Your task to perform on an android device: uninstall "Google Home" Image 0: 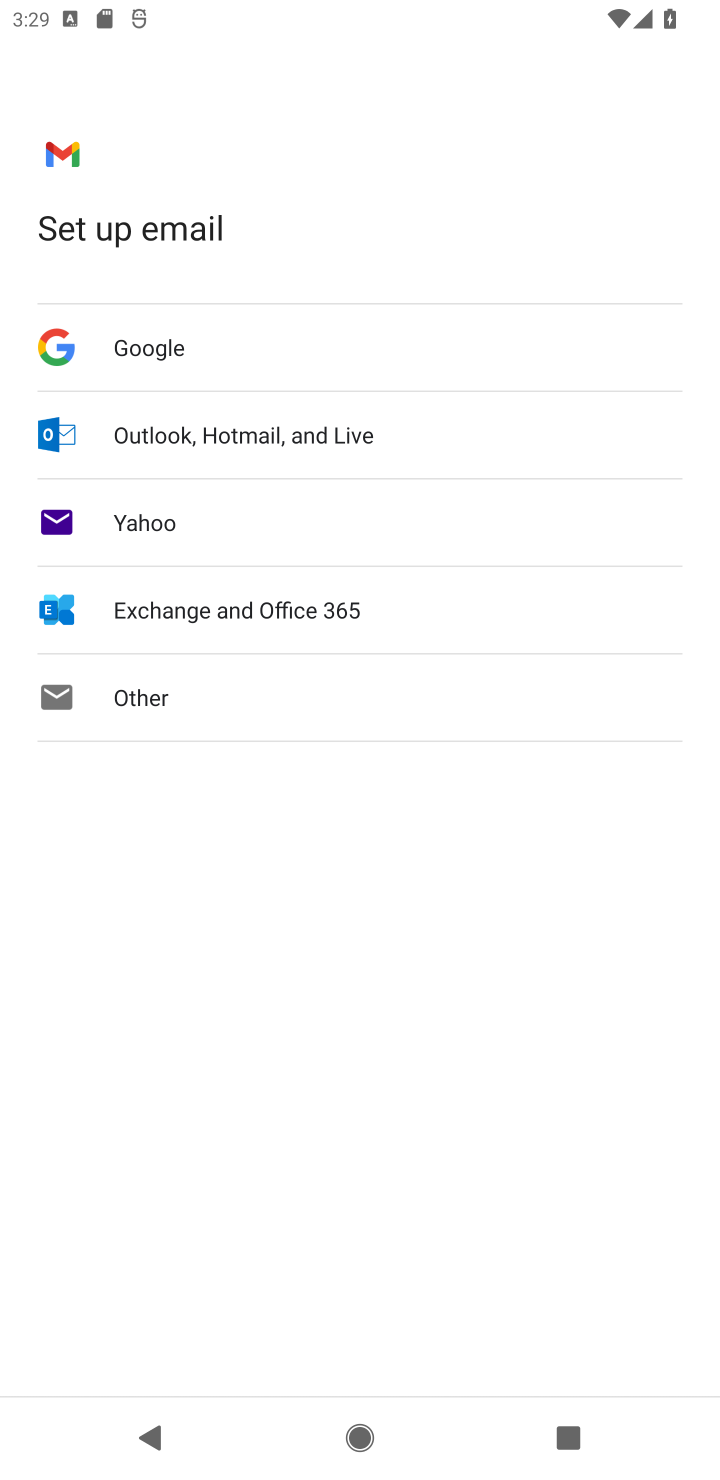
Step 0: press home button
Your task to perform on an android device: uninstall "Google Home" Image 1: 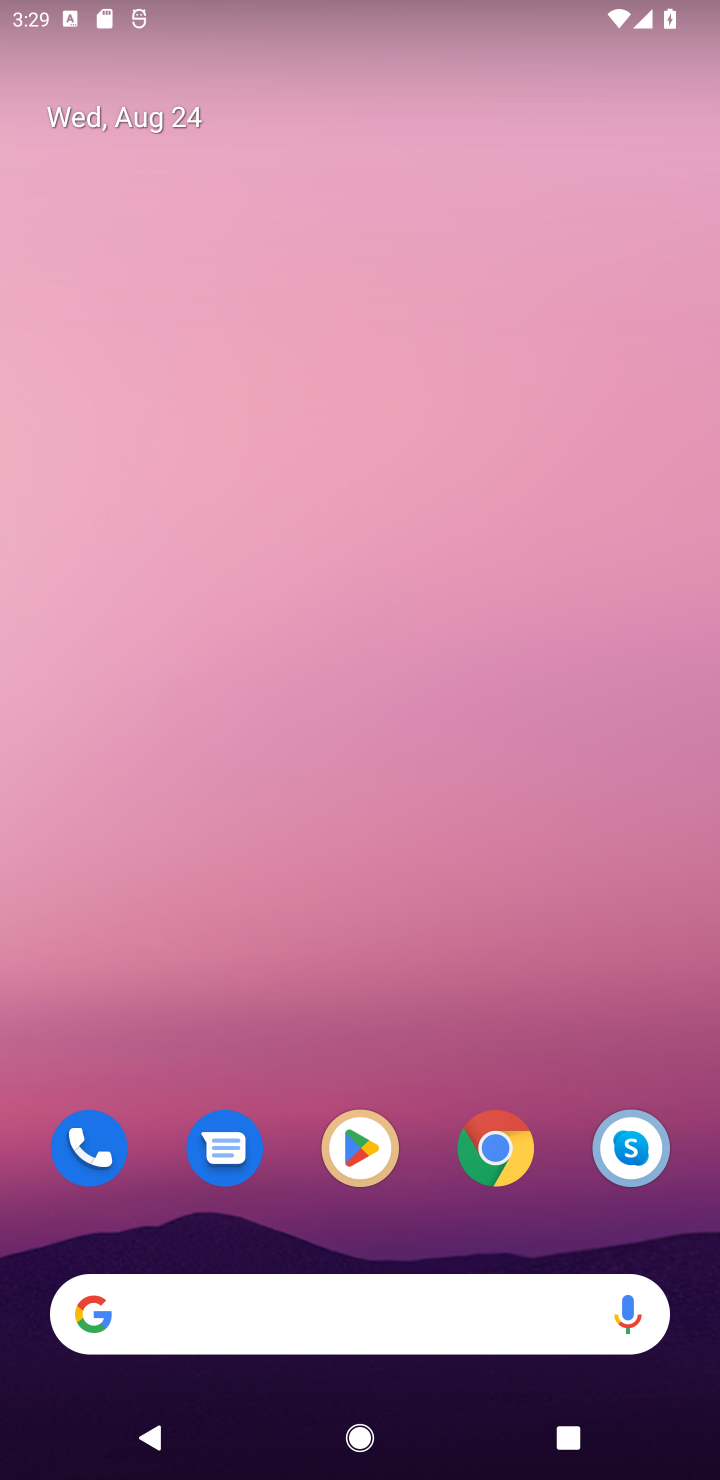
Step 1: click (354, 1141)
Your task to perform on an android device: uninstall "Google Home" Image 2: 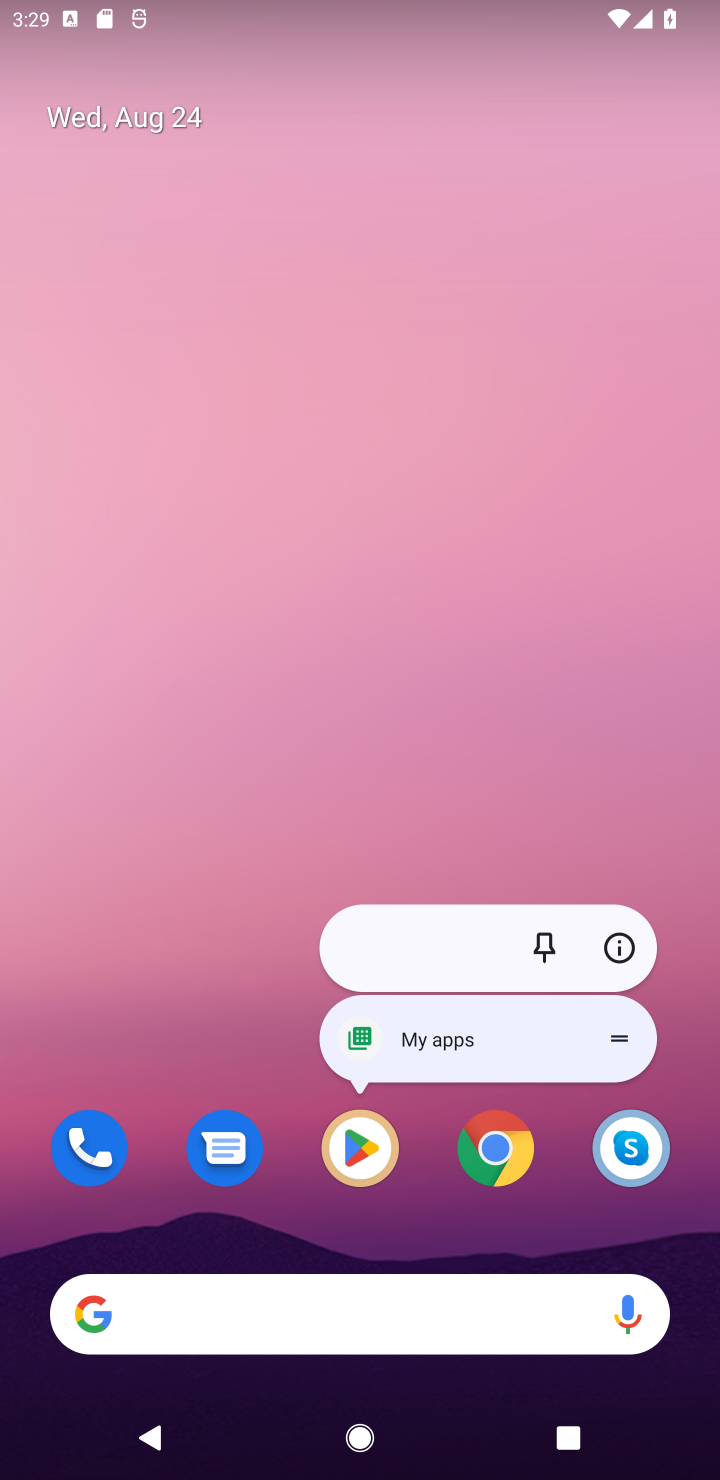
Step 2: drag from (278, 1127) to (283, 244)
Your task to perform on an android device: uninstall "Google Home" Image 3: 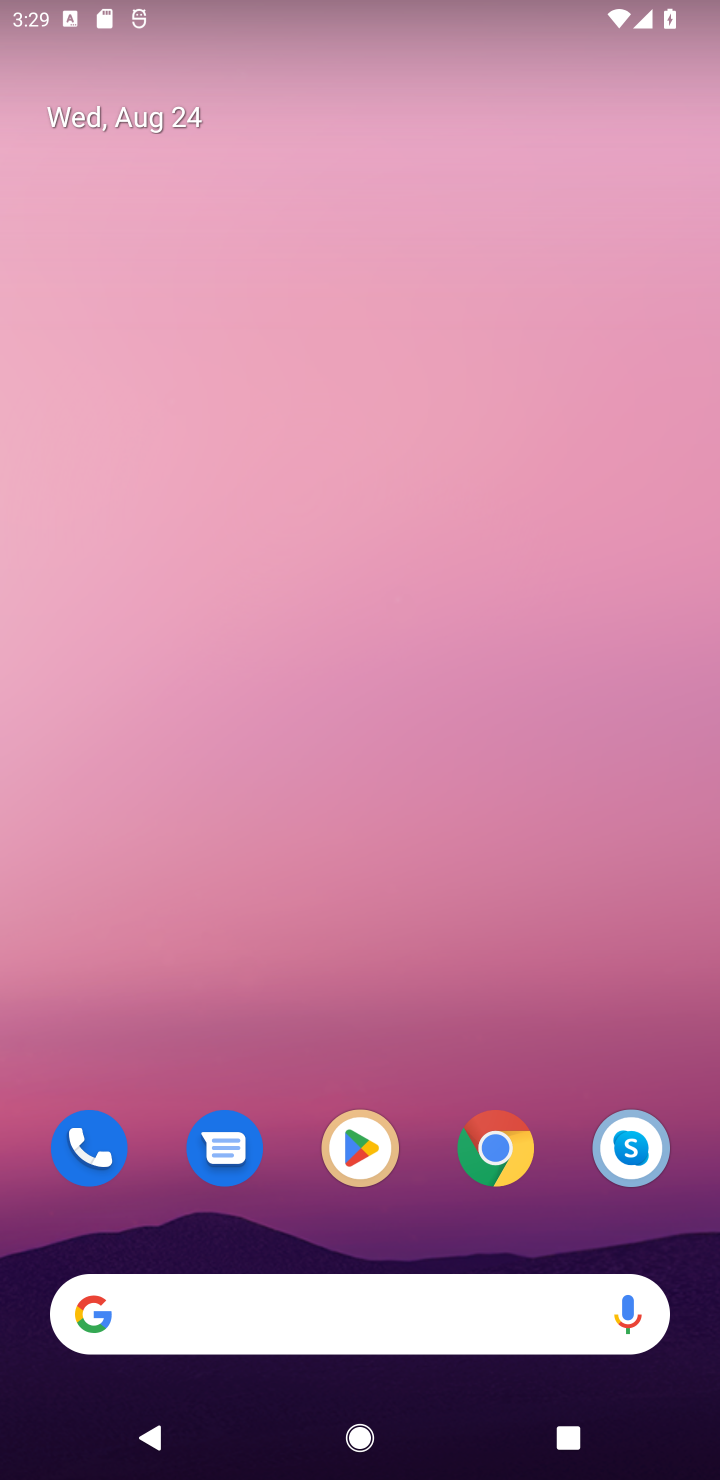
Step 3: drag from (332, 1172) to (383, 316)
Your task to perform on an android device: uninstall "Google Home" Image 4: 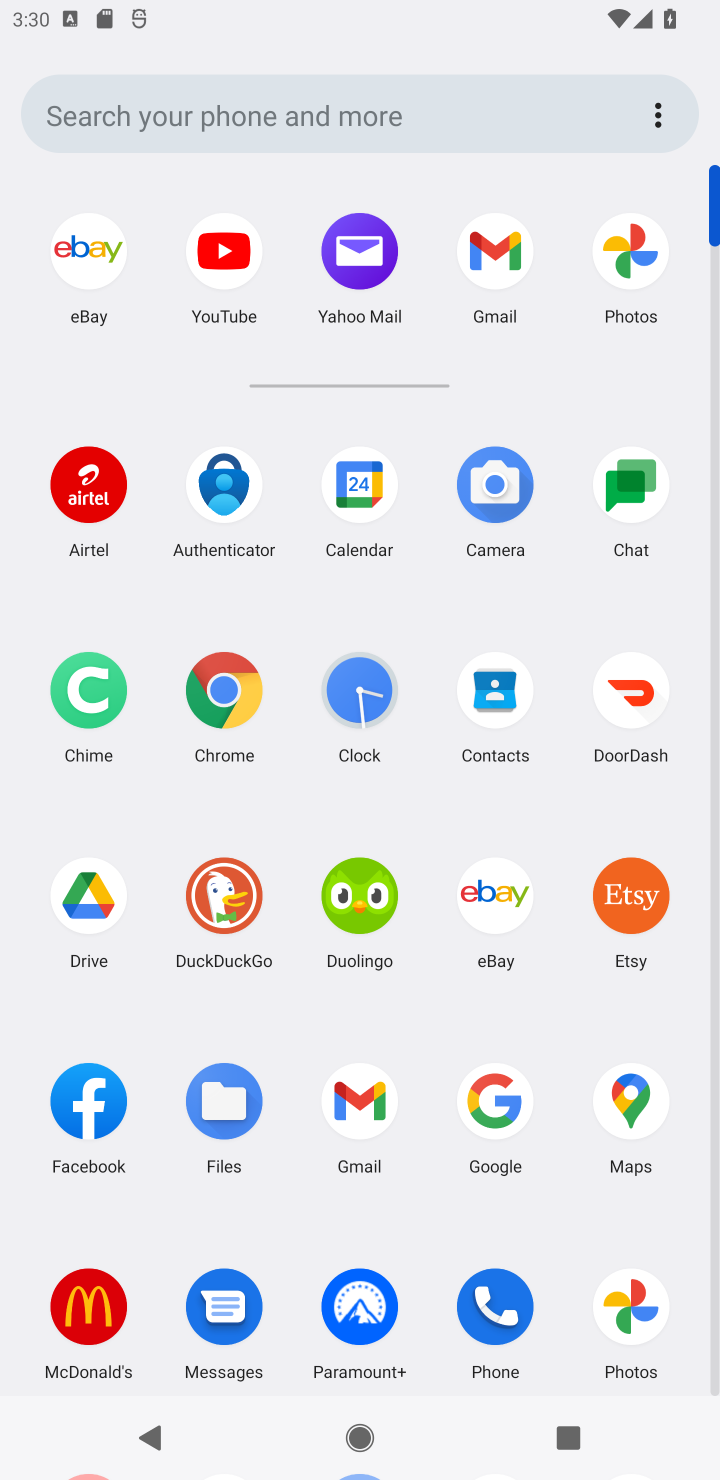
Step 4: drag from (255, 1030) to (392, 259)
Your task to perform on an android device: uninstall "Google Home" Image 5: 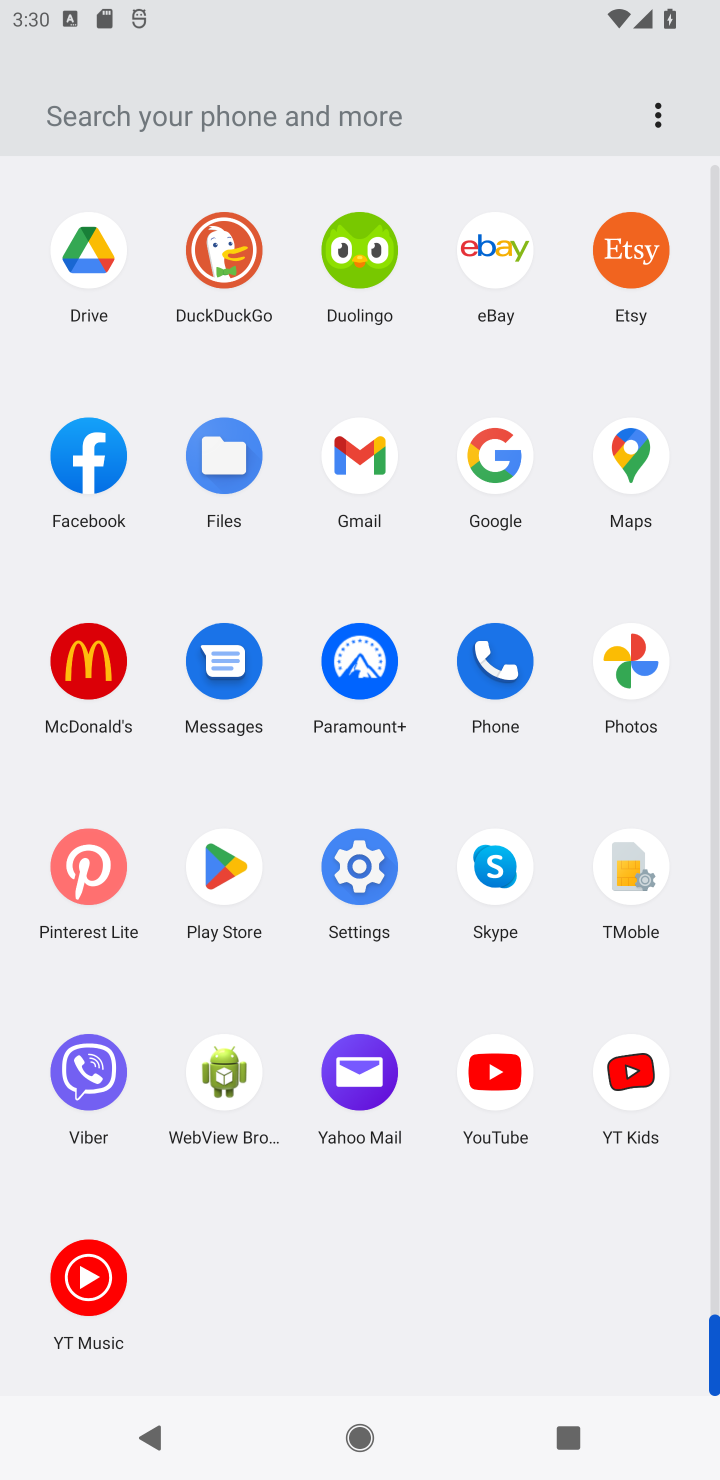
Step 5: click (248, 883)
Your task to perform on an android device: uninstall "Google Home" Image 6: 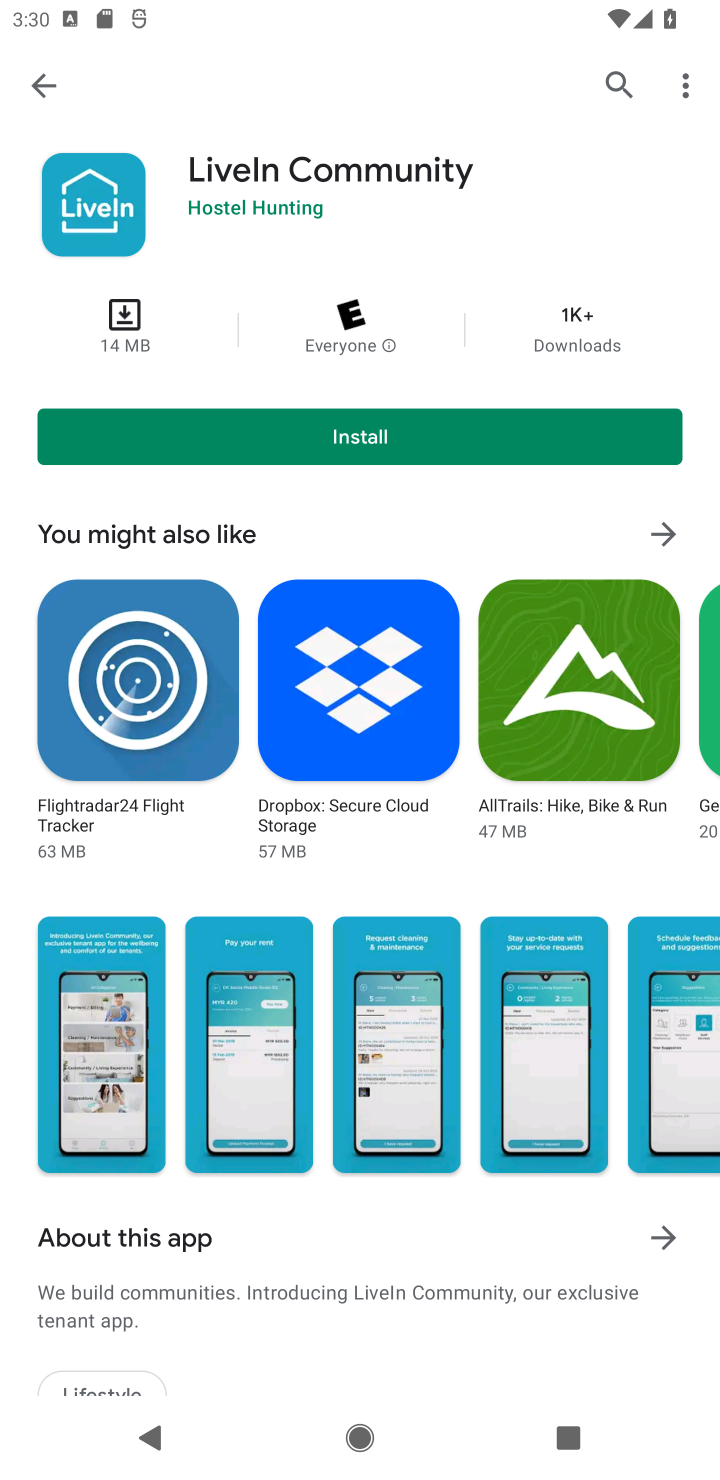
Step 6: click (50, 84)
Your task to perform on an android device: uninstall "Google Home" Image 7: 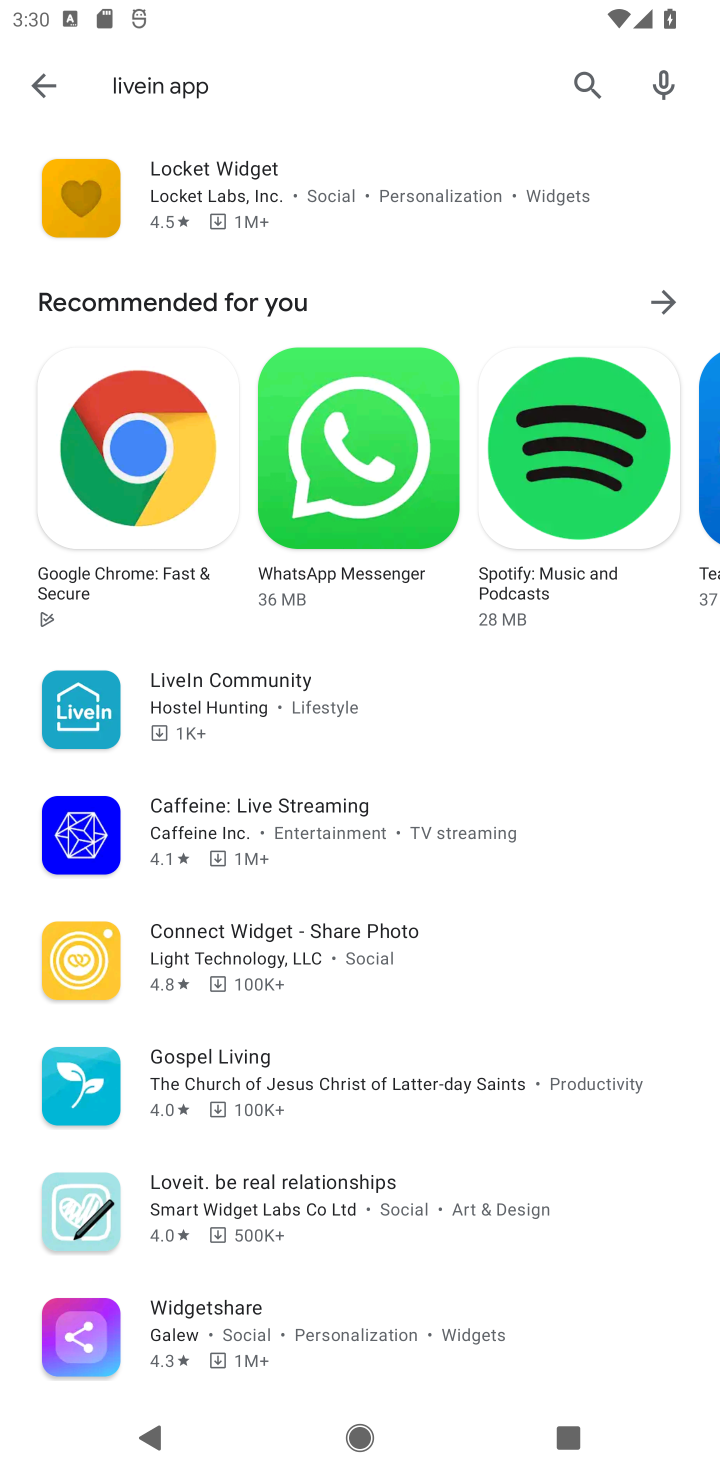
Step 7: click (50, 81)
Your task to perform on an android device: uninstall "Google Home" Image 8: 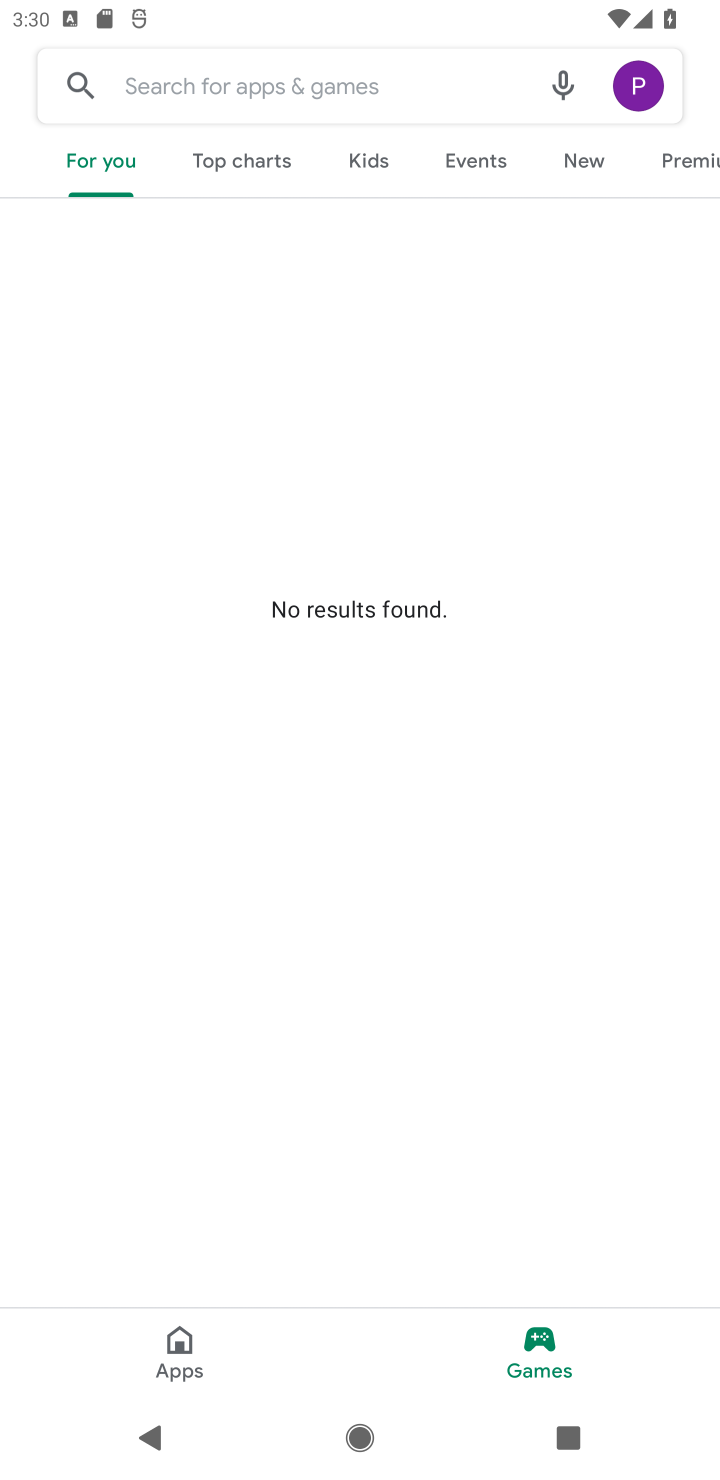
Step 8: click (305, 66)
Your task to perform on an android device: uninstall "Google Home" Image 9: 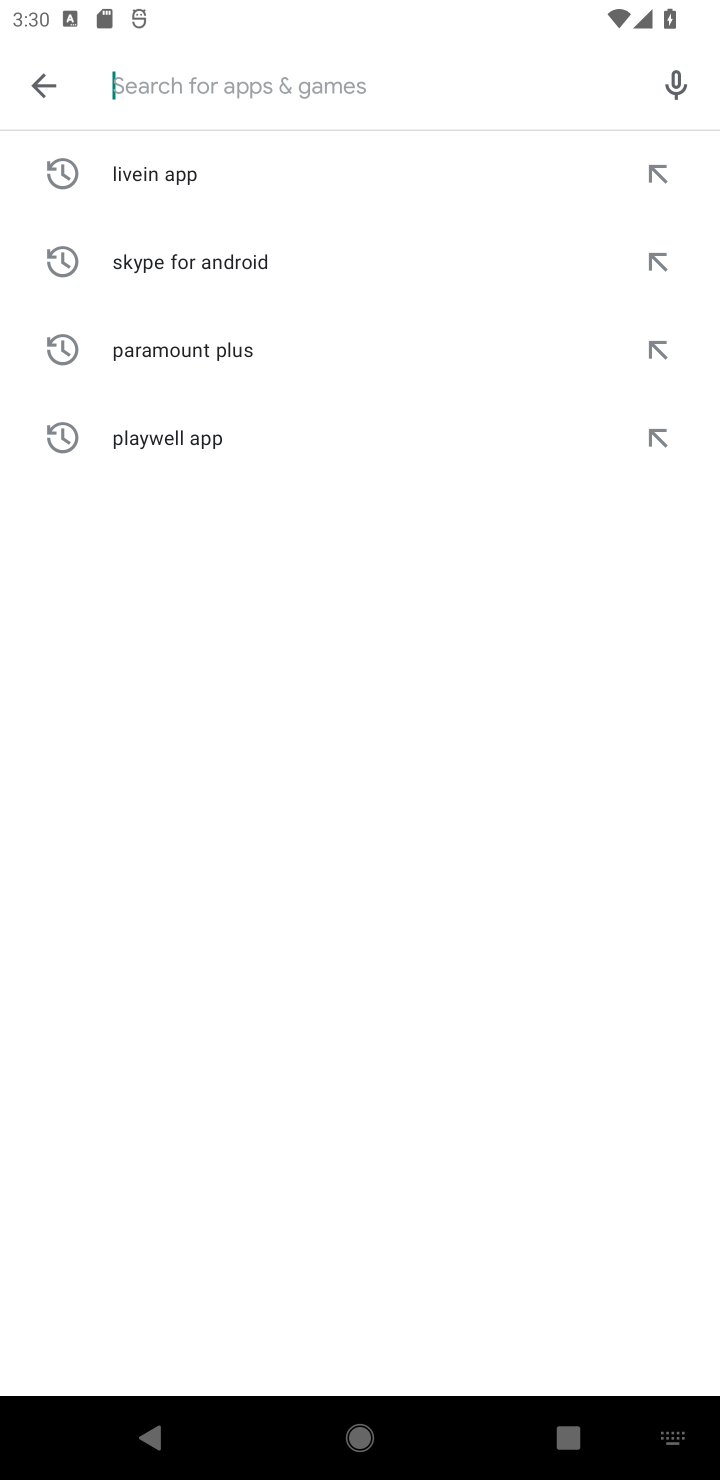
Step 9: click (249, 88)
Your task to perform on an android device: uninstall "Google Home" Image 10: 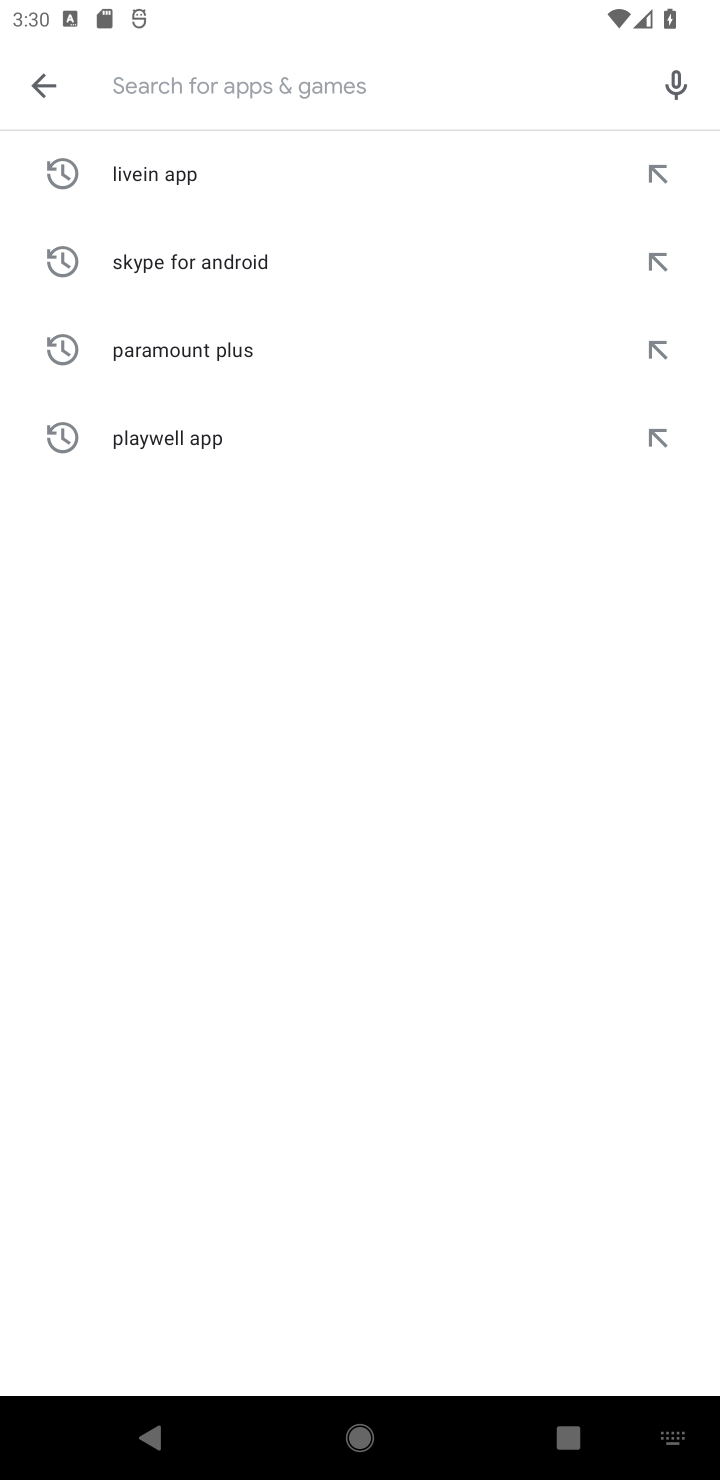
Step 10: type "Google Home "
Your task to perform on an android device: uninstall "Google Home" Image 11: 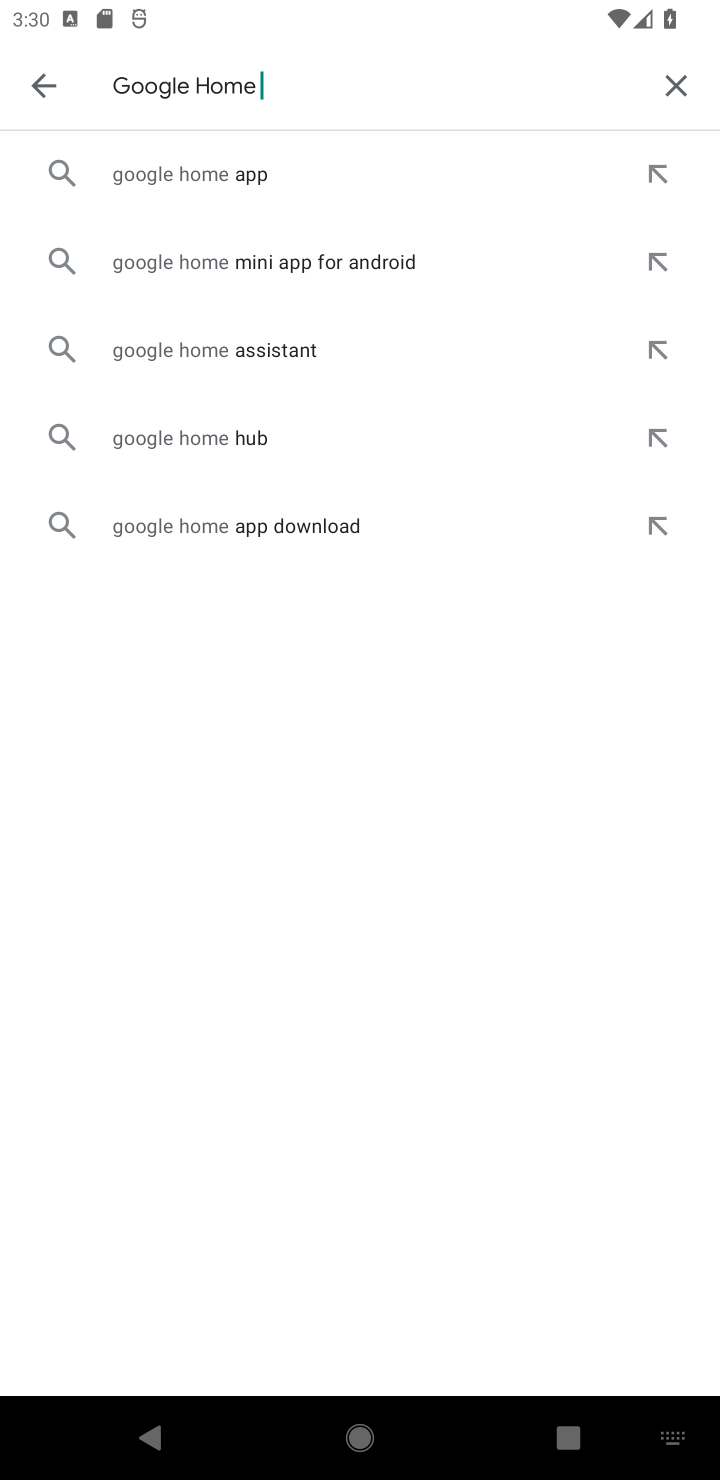
Step 11: click (266, 181)
Your task to perform on an android device: uninstall "Google Home" Image 12: 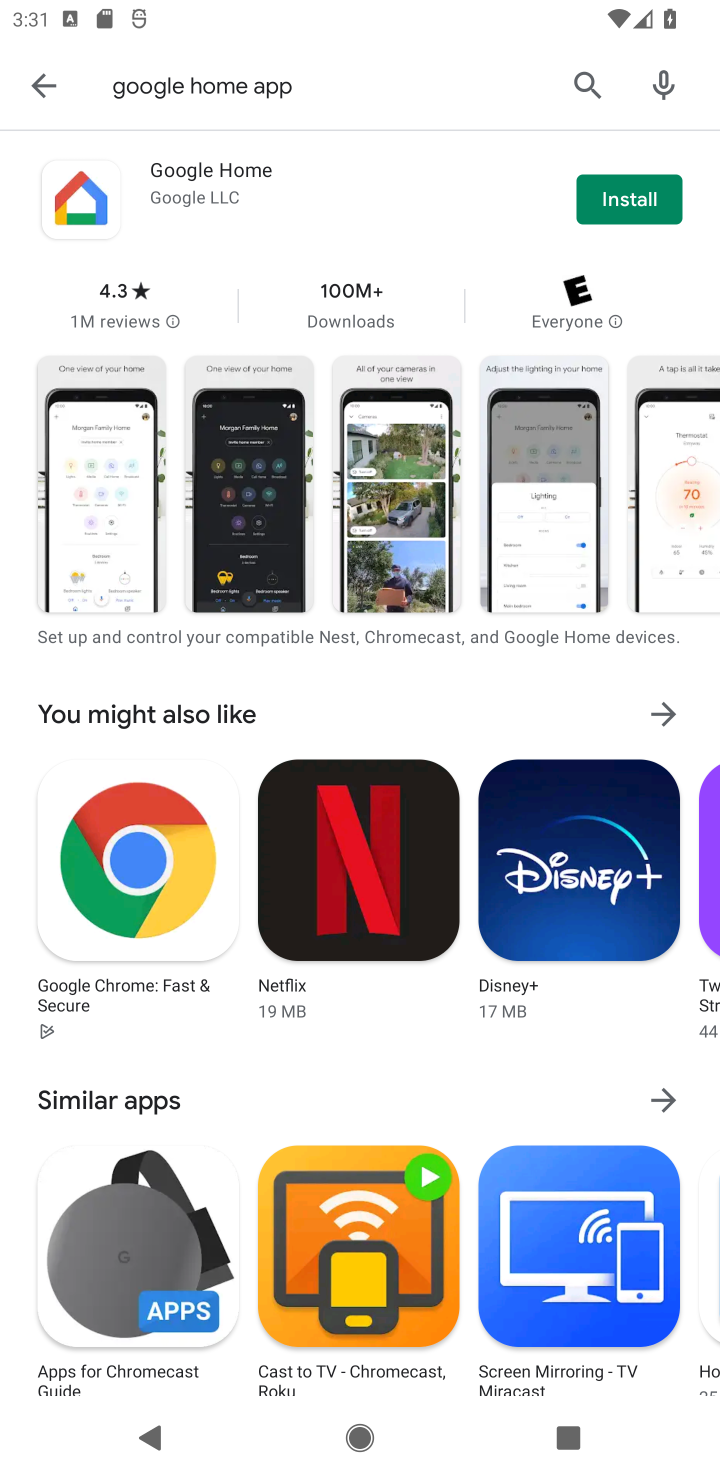
Step 12: task complete